Your task to perform on an android device: Go to privacy settings Image 0: 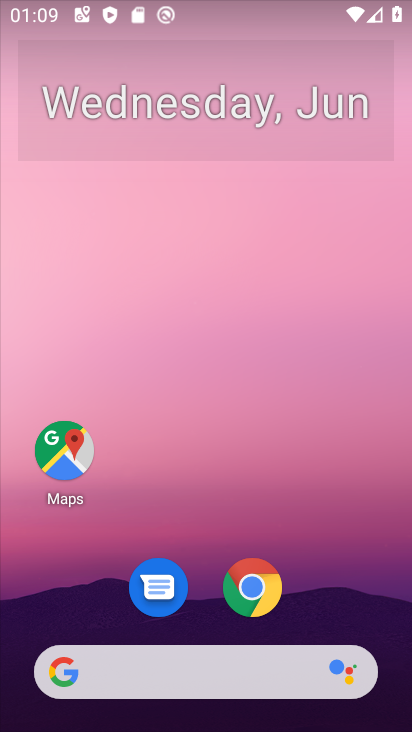
Step 0: drag from (345, 447) to (336, 89)
Your task to perform on an android device: Go to privacy settings Image 1: 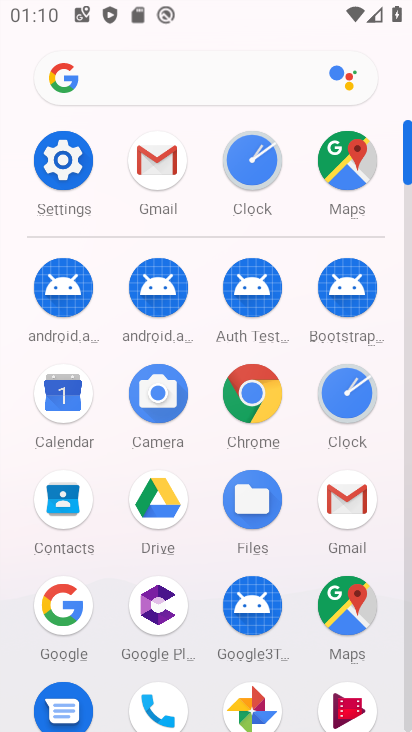
Step 1: click (74, 162)
Your task to perform on an android device: Go to privacy settings Image 2: 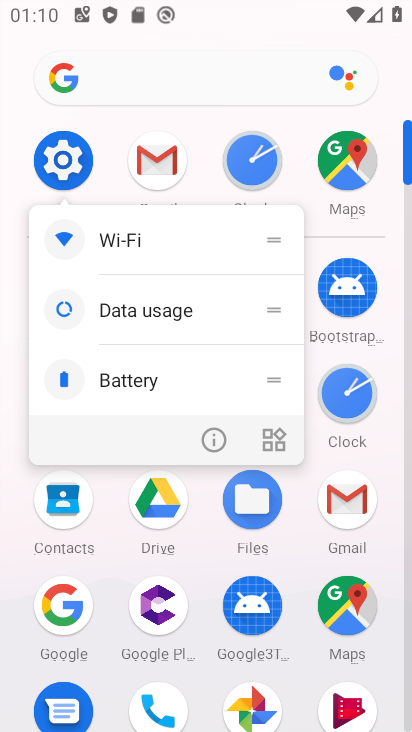
Step 2: click (65, 157)
Your task to perform on an android device: Go to privacy settings Image 3: 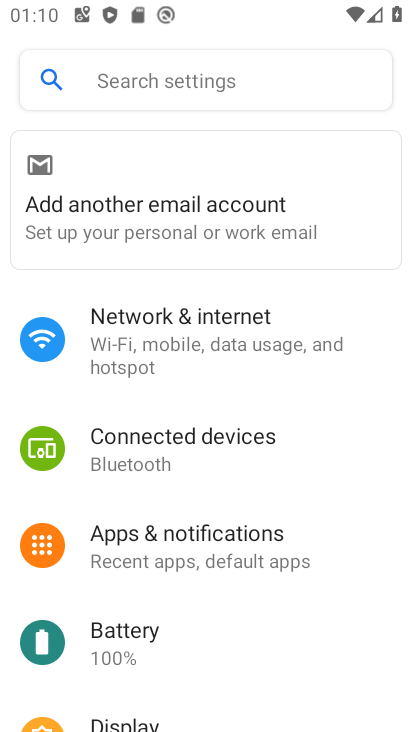
Step 3: drag from (202, 482) to (215, 105)
Your task to perform on an android device: Go to privacy settings Image 4: 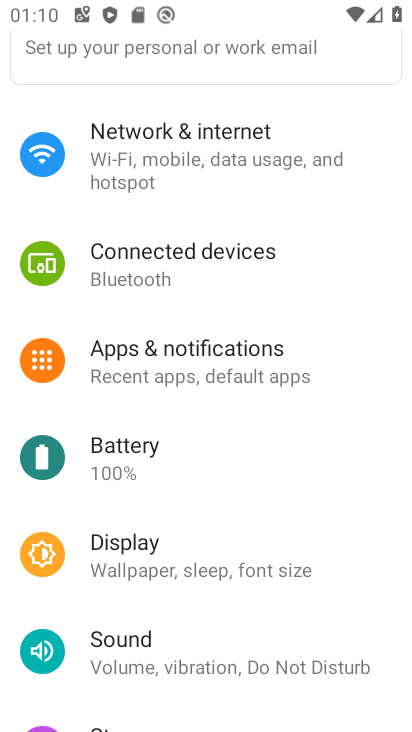
Step 4: drag from (207, 559) to (243, 208)
Your task to perform on an android device: Go to privacy settings Image 5: 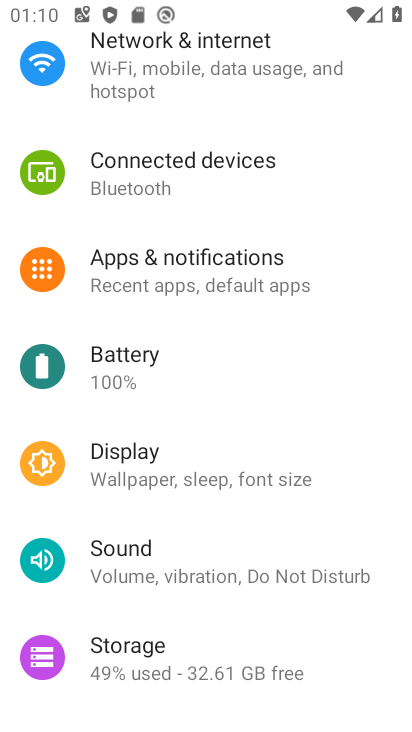
Step 5: drag from (250, 592) to (258, 123)
Your task to perform on an android device: Go to privacy settings Image 6: 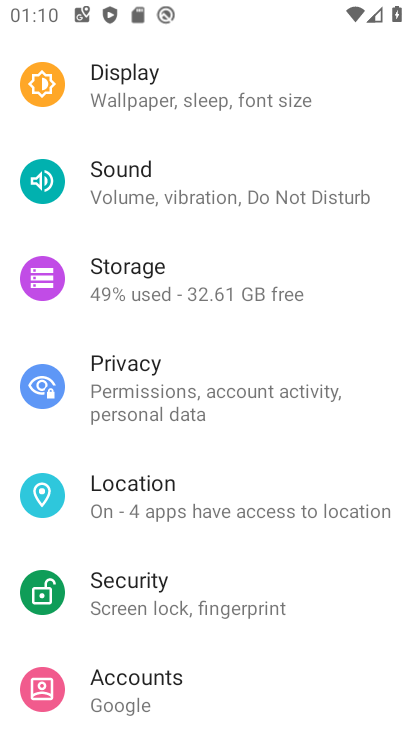
Step 6: drag from (239, 492) to (270, 214)
Your task to perform on an android device: Go to privacy settings Image 7: 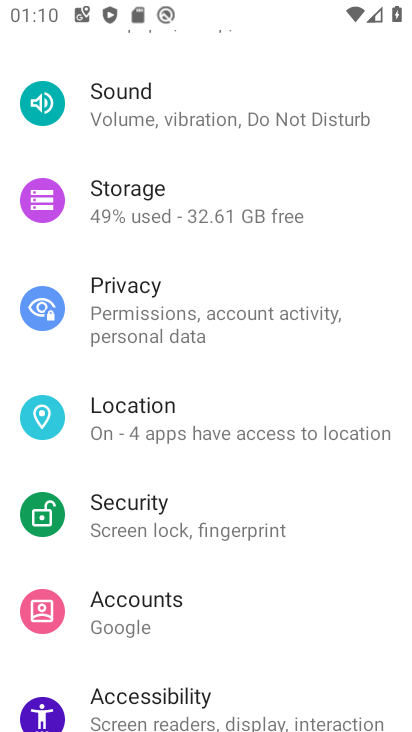
Step 7: drag from (283, 586) to (258, 100)
Your task to perform on an android device: Go to privacy settings Image 8: 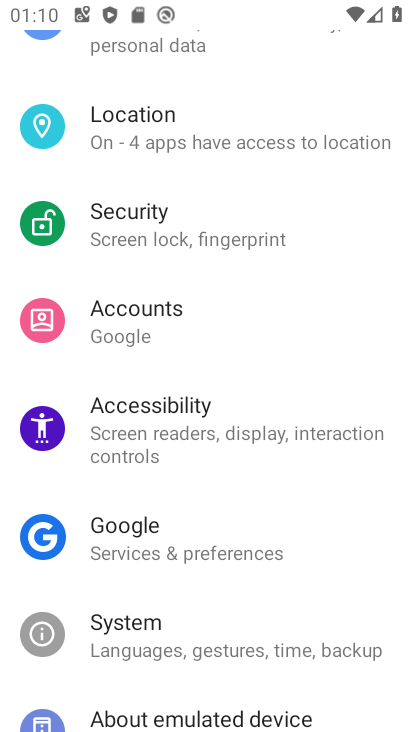
Step 8: drag from (308, 458) to (306, 664)
Your task to perform on an android device: Go to privacy settings Image 9: 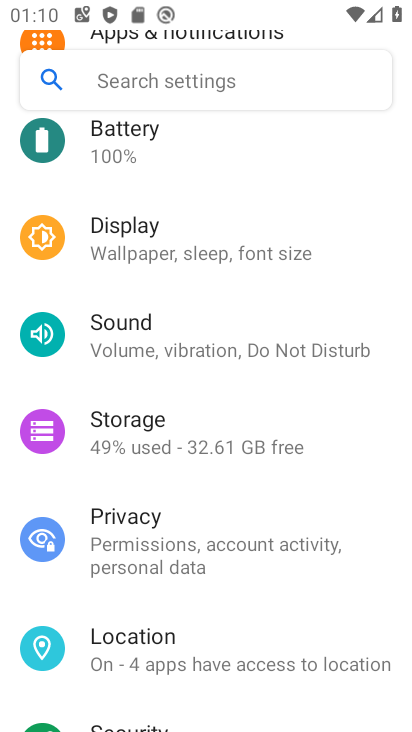
Step 9: click (143, 537)
Your task to perform on an android device: Go to privacy settings Image 10: 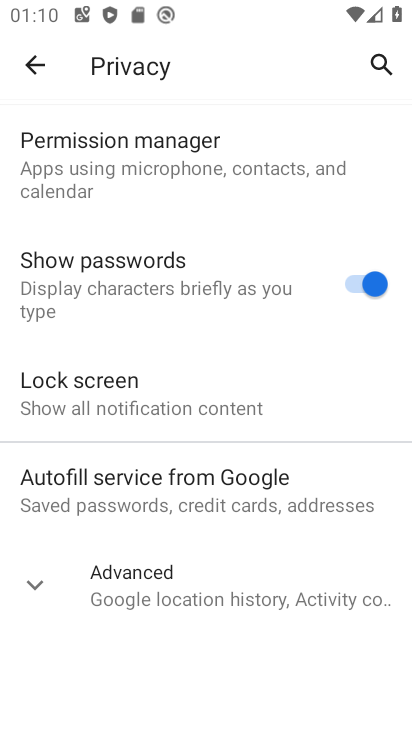
Step 10: task complete